Your task to perform on an android device: Turn on the flashlight Image 0: 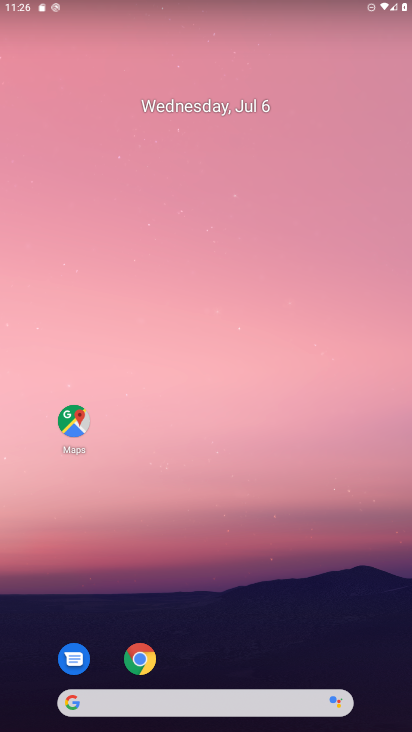
Step 0: drag from (182, 657) to (286, 26)
Your task to perform on an android device: Turn on the flashlight Image 1: 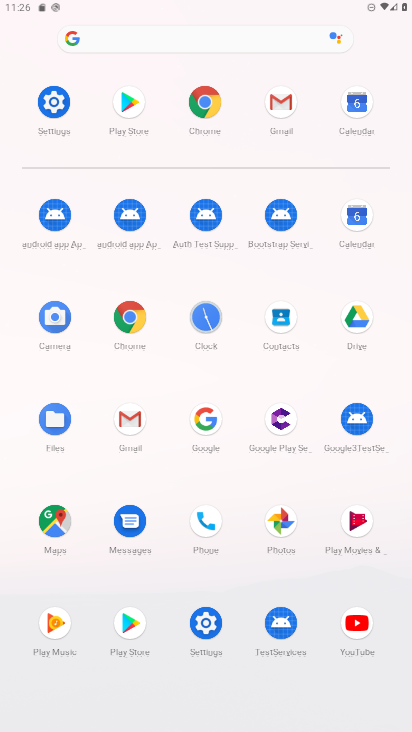
Step 1: click (67, 97)
Your task to perform on an android device: Turn on the flashlight Image 2: 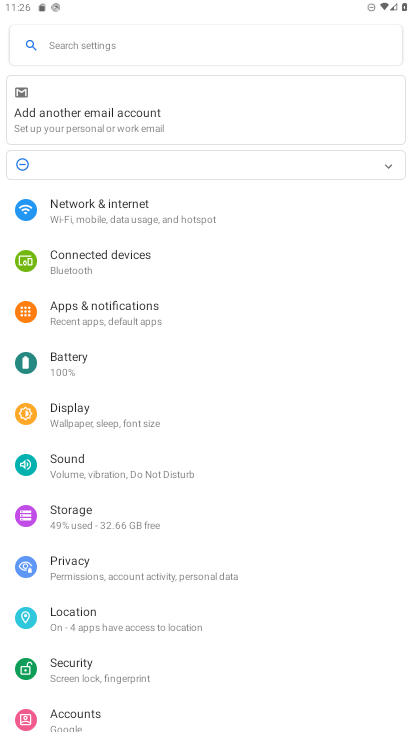
Step 2: click (98, 48)
Your task to perform on an android device: Turn on the flashlight Image 3: 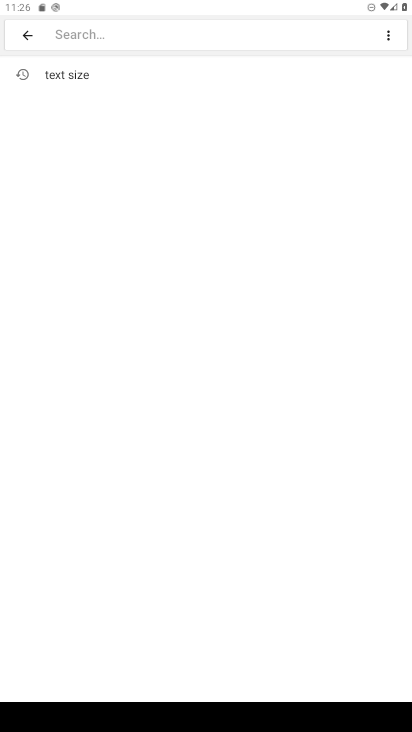
Step 3: type "flashlight"
Your task to perform on an android device: Turn on the flashlight Image 4: 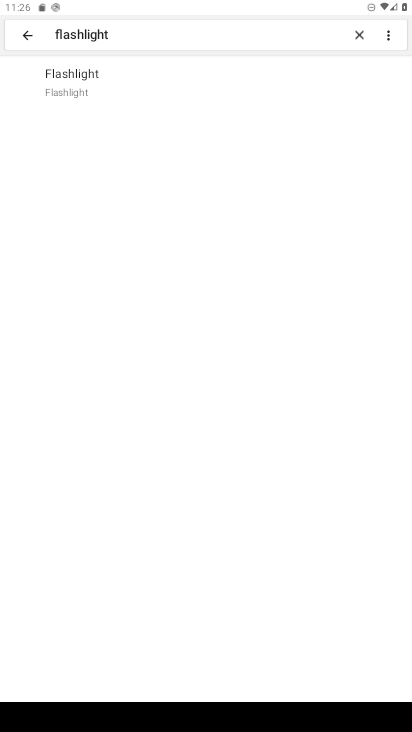
Step 4: click (126, 66)
Your task to perform on an android device: Turn on the flashlight Image 5: 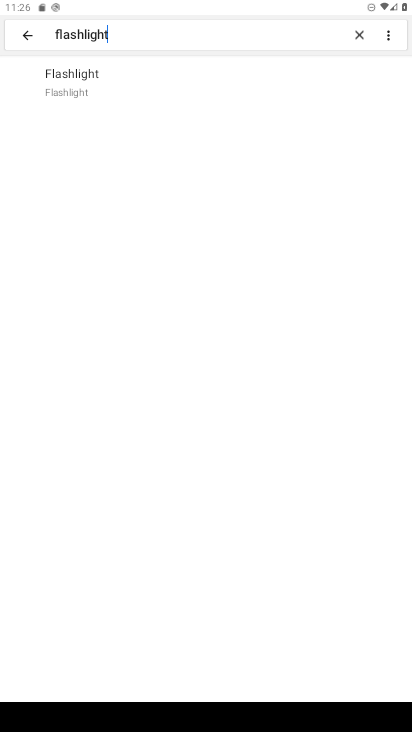
Step 5: click (97, 77)
Your task to perform on an android device: Turn on the flashlight Image 6: 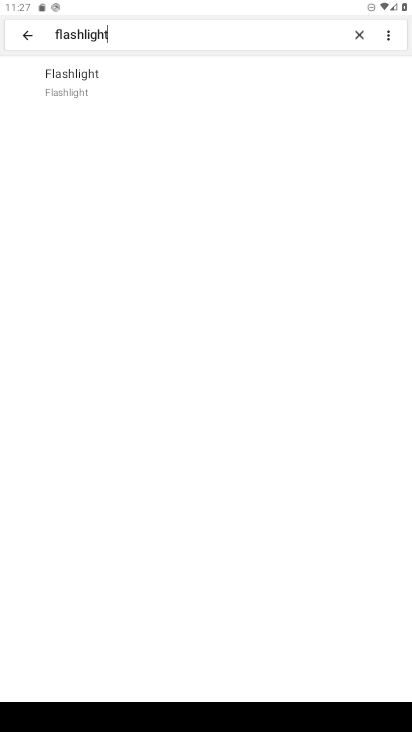
Step 6: task complete